Your task to perform on an android device: open device folders in google photos Image 0: 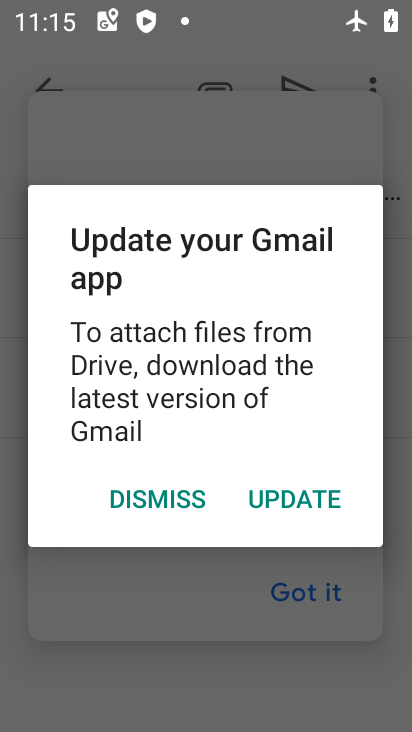
Step 0: press home button
Your task to perform on an android device: open device folders in google photos Image 1: 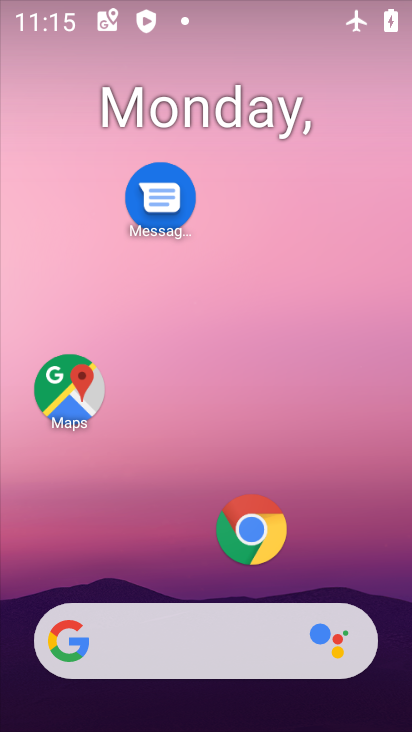
Step 1: drag from (171, 525) to (411, 333)
Your task to perform on an android device: open device folders in google photos Image 2: 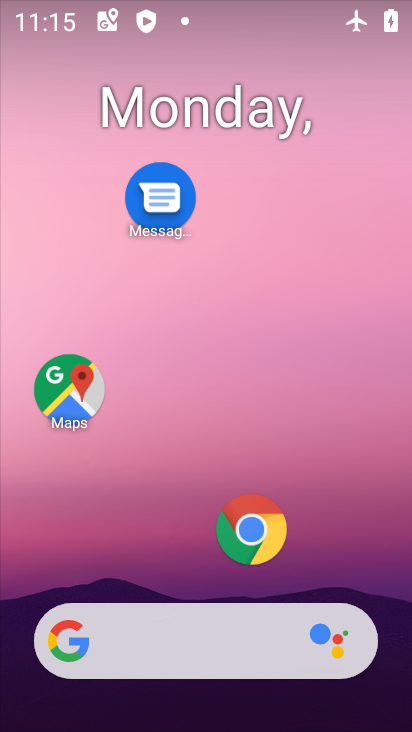
Step 2: drag from (254, 390) to (349, 16)
Your task to perform on an android device: open device folders in google photos Image 3: 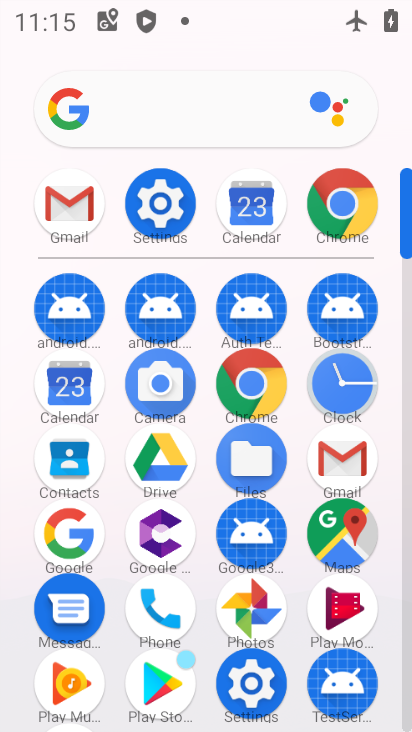
Step 3: drag from (211, 242) to (241, 45)
Your task to perform on an android device: open device folders in google photos Image 4: 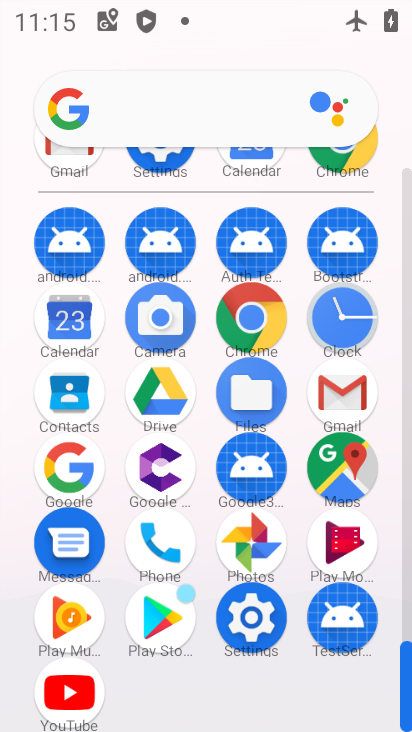
Step 4: click (266, 557)
Your task to perform on an android device: open device folders in google photos Image 5: 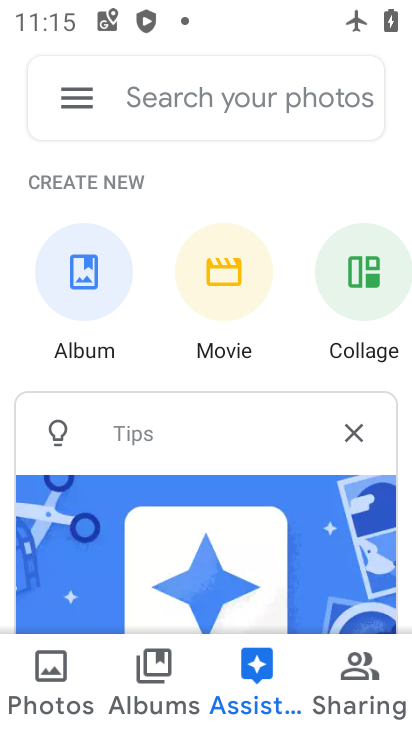
Step 5: click (272, 104)
Your task to perform on an android device: open device folders in google photos Image 6: 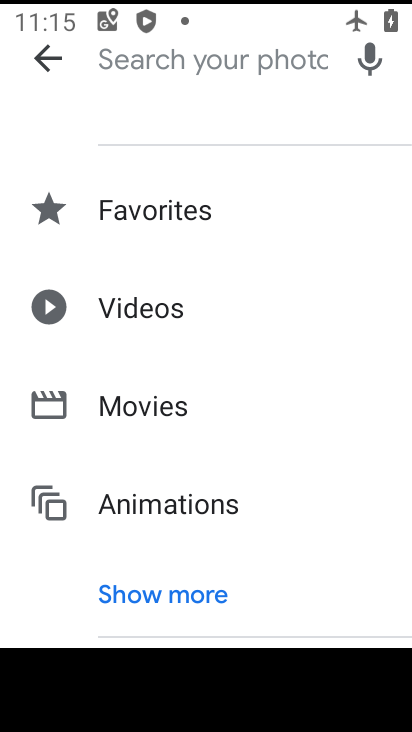
Step 6: click (155, 582)
Your task to perform on an android device: open device folders in google photos Image 7: 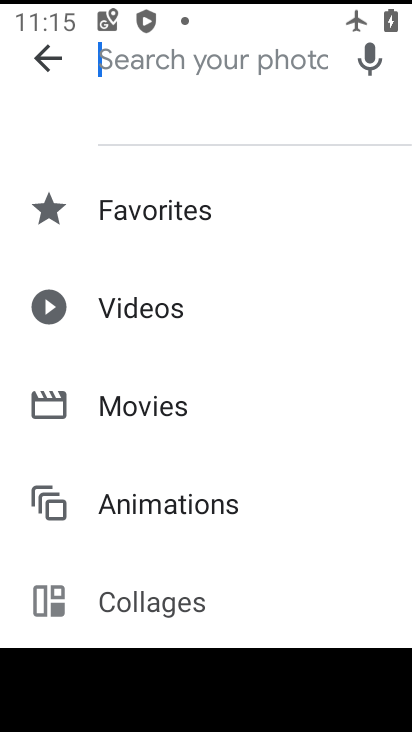
Step 7: drag from (146, 556) to (276, 93)
Your task to perform on an android device: open device folders in google photos Image 8: 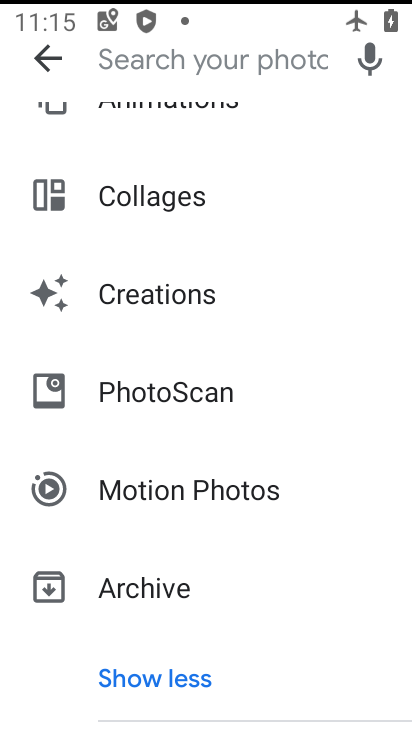
Step 8: click (184, 680)
Your task to perform on an android device: open device folders in google photos Image 9: 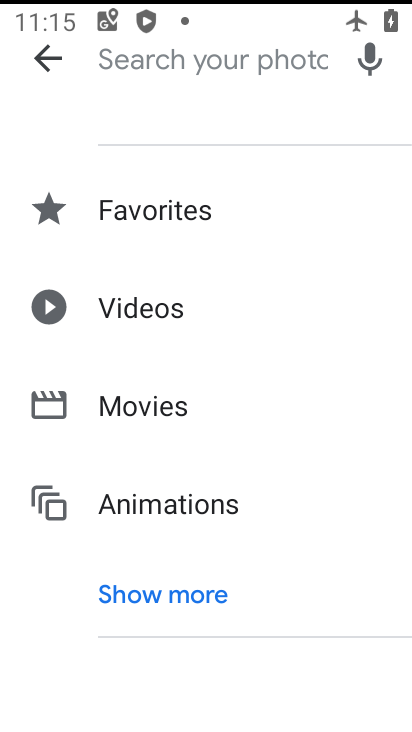
Step 9: click (28, 58)
Your task to perform on an android device: open device folders in google photos Image 10: 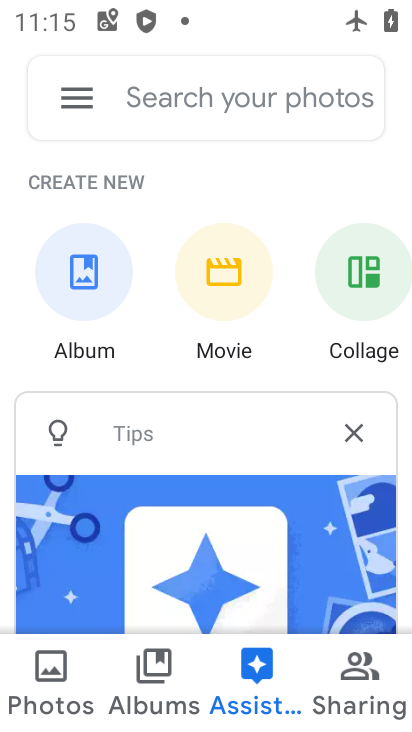
Step 10: click (65, 104)
Your task to perform on an android device: open device folders in google photos Image 11: 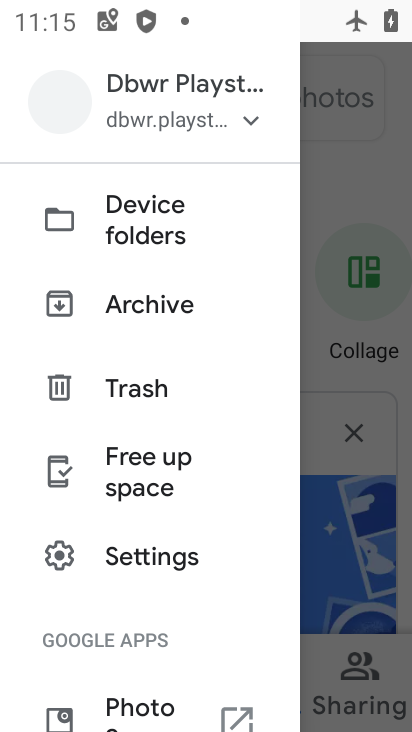
Step 11: drag from (133, 506) to (169, 283)
Your task to perform on an android device: open device folders in google photos Image 12: 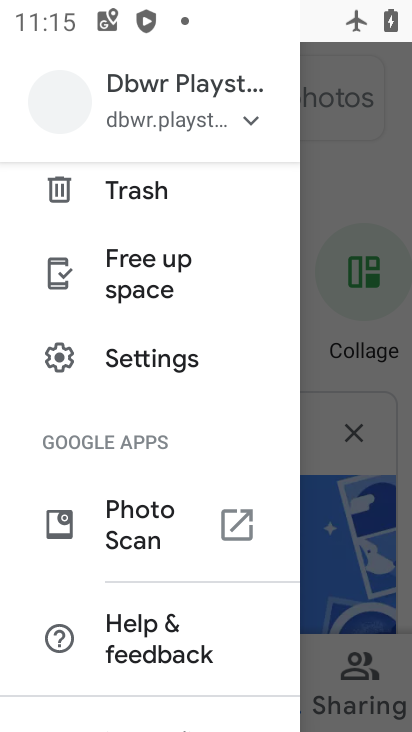
Step 12: drag from (192, 186) to (149, 645)
Your task to perform on an android device: open device folders in google photos Image 13: 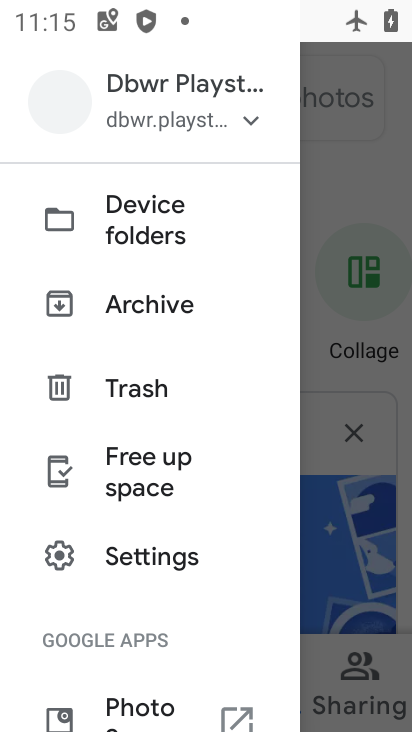
Step 13: click (188, 232)
Your task to perform on an android device: open device folders in google photos Image 14: 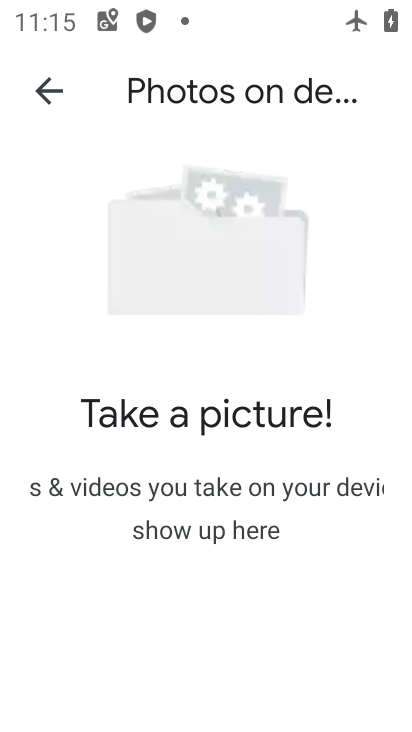
Step 14: task complete